Your task to perform on an android device: toggle wifi Image 0: 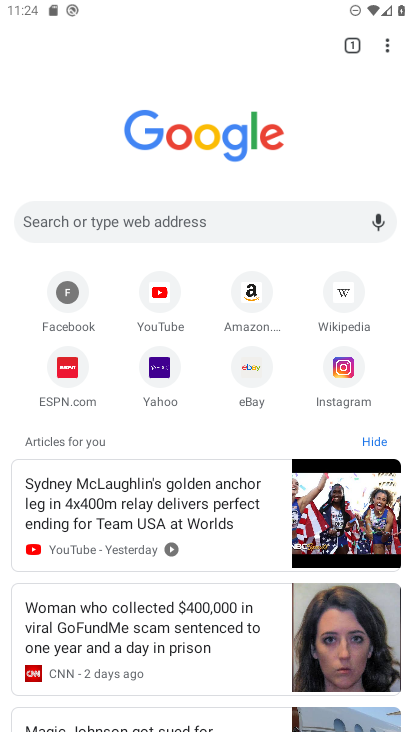
Step 0: press home button
Your task to perform on an android device: toggle wifi Image 1: 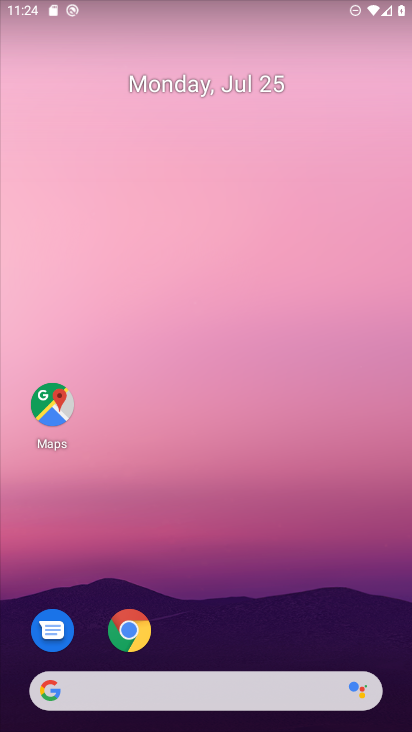
Step 1: drag from (244, 629) to (225, 16)
Your task to perform on an android device: toggle wifi Image 2: 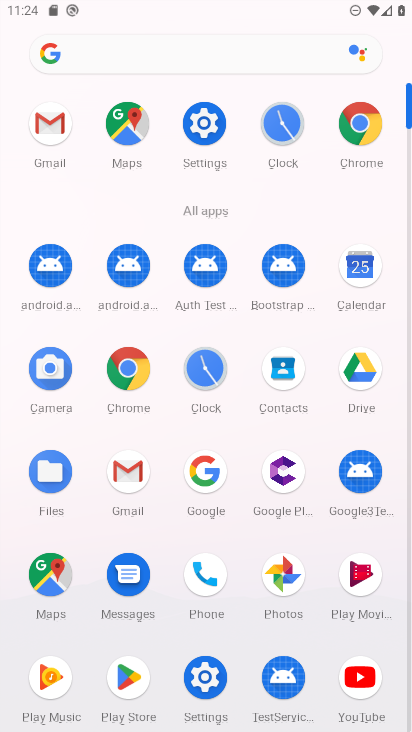
Step 2: click (203, 129)
Your task to perform on an android device: toggle wifi Image 3: 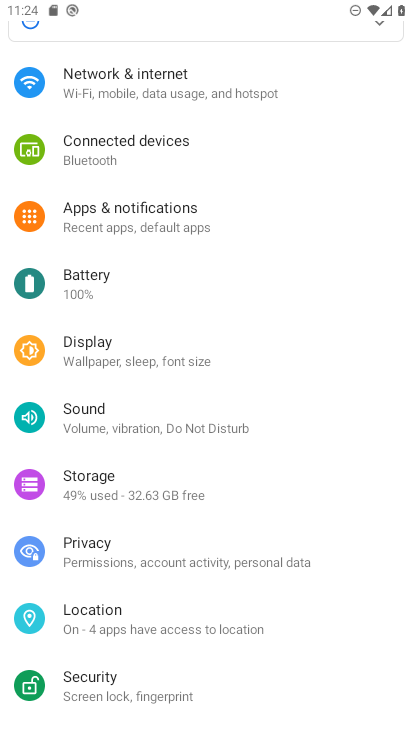
Step 3: click (141, 101)
Your task to perform on an android device: toggle wifi Image 4: 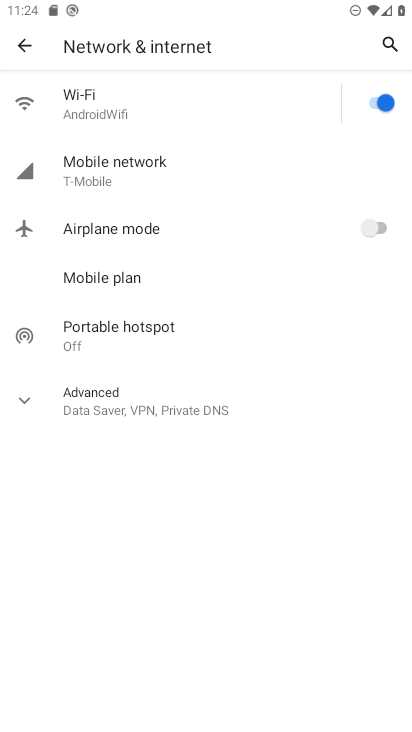
Step 4: click (380, 107)
Your task to perform on an android device: toggle wifi Image 5: 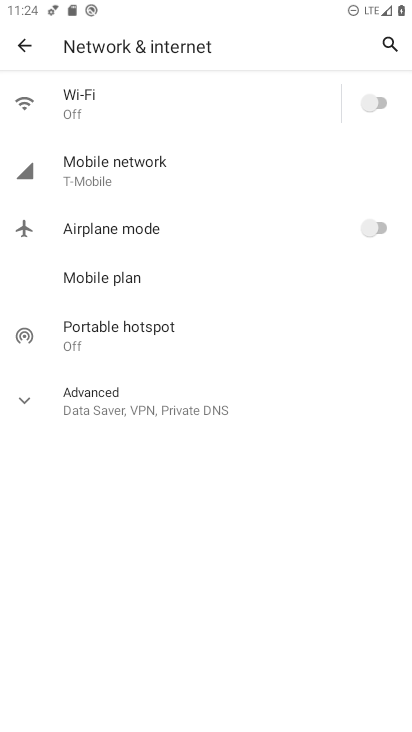
Step 5: task complete